Your task to perform on an android device: turn on improve location accuracy Image 0: 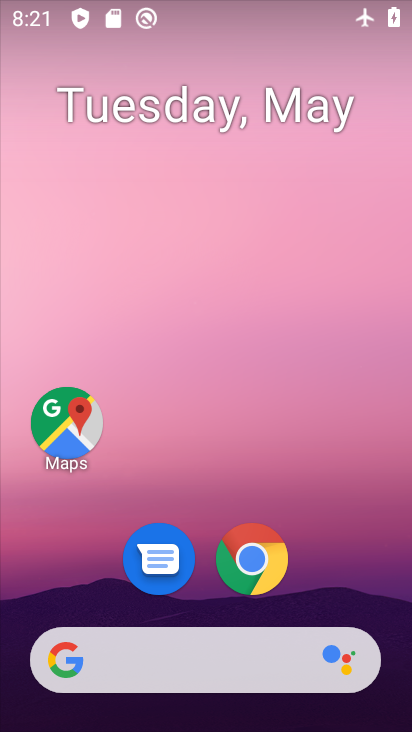
Step 0: drag from (220, 600) to (232, 199)
Your task to perform on an android device: turn on improve location accuracy Image 1: 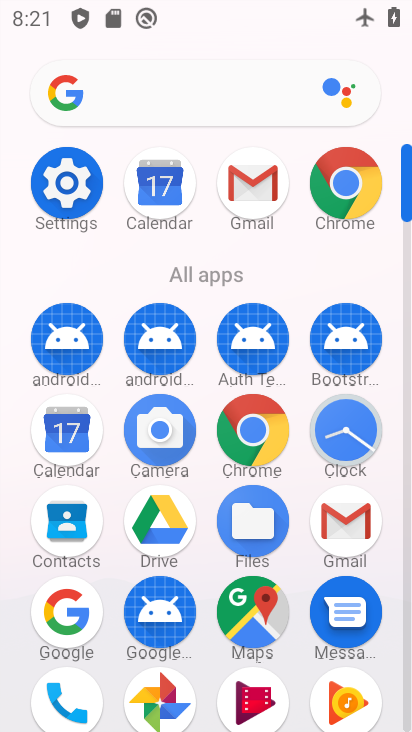
Step 1: click (59, 210)
Your task to perform on an android device: turn on improve location accuracy Image 2: 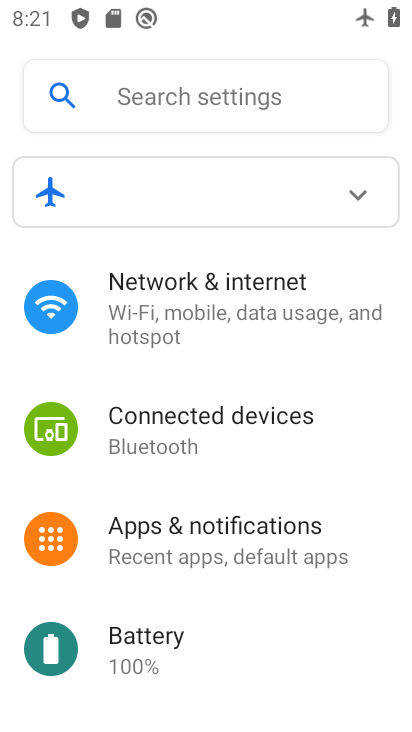
Step 2: drag from (223, 583) to (184, 352)
Your task to perform on an android device: turn on improve location accuracy Image 3: 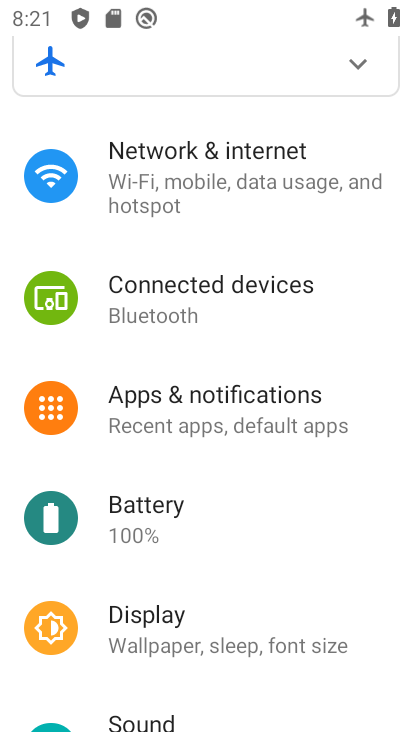
Step 3: drag from (205, 560) to (182, 331)
Your task to perform on an android device: turn on improve location accuracy Image 4: 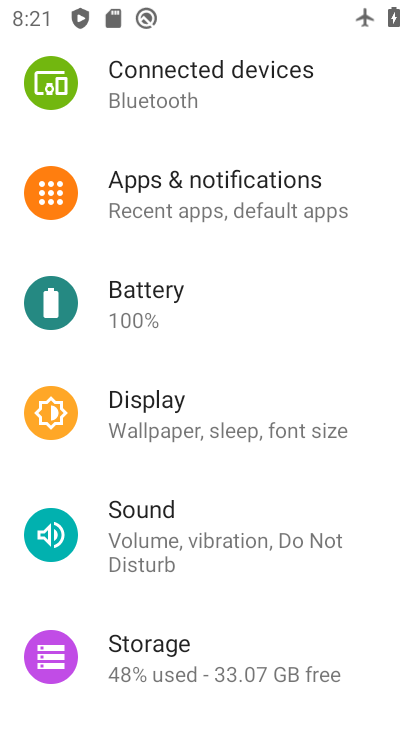
Step 4: drag from (203, 583) to (207, 388)
Your task to perform on an android device: turn on improve location accuracy Image 5: 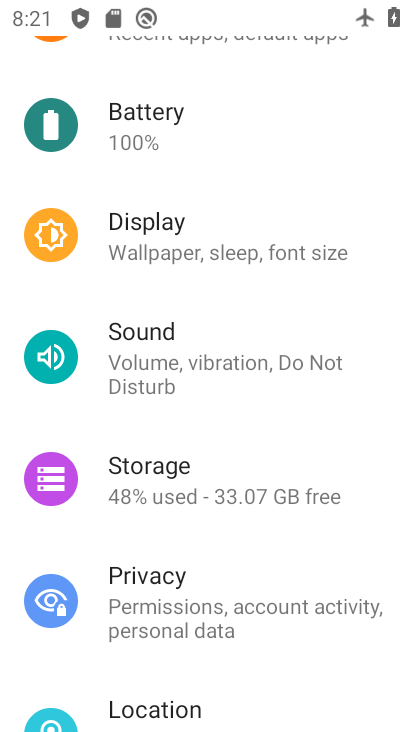
Step 5: click (202, 697)
Your task to perform on an android device: turn on improve location accuracy Image 6: 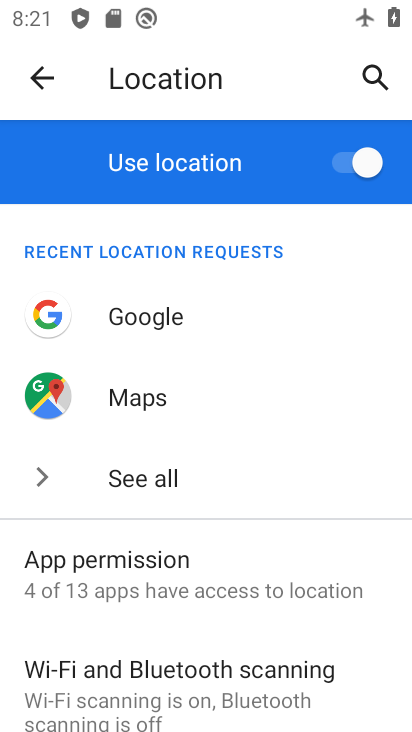
Step 6: drag from (285, 677) to (272, 417)
Your task to perform on an android device: turn on improve location accuracy Image 7: 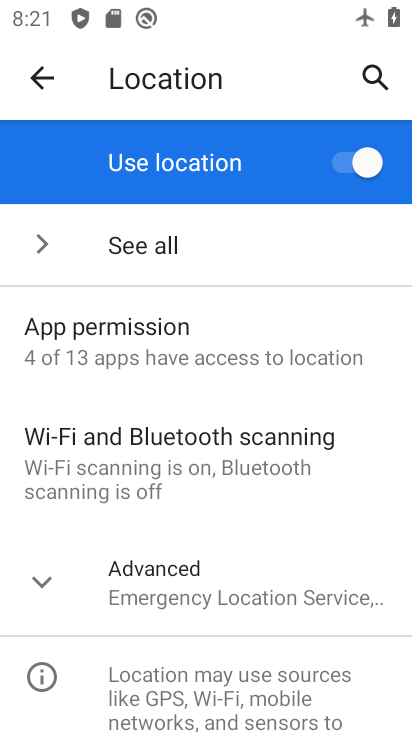
Step 7: click (260, 596)
Your task to perform on an android device: turn on improve location accuracy Image 8: 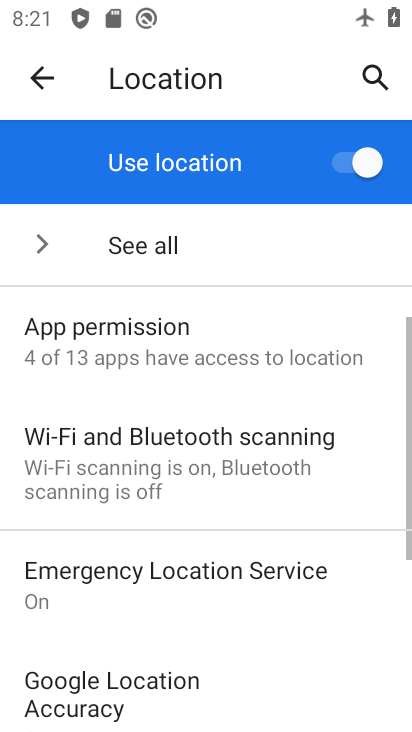
Step 8: drag from (260, 649) to (244, 485)
Your task to perform on an android device: turn on improve location accuracy Image 9: 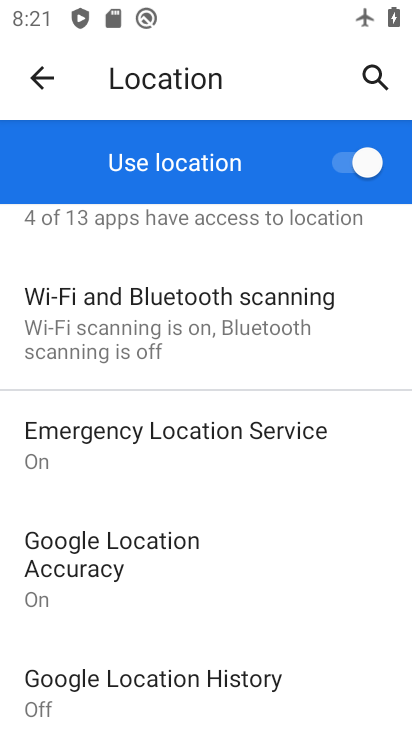
Step 9: click (203, 537)
Your task to perform on an android device: turn on improve location accuracy Image 10: 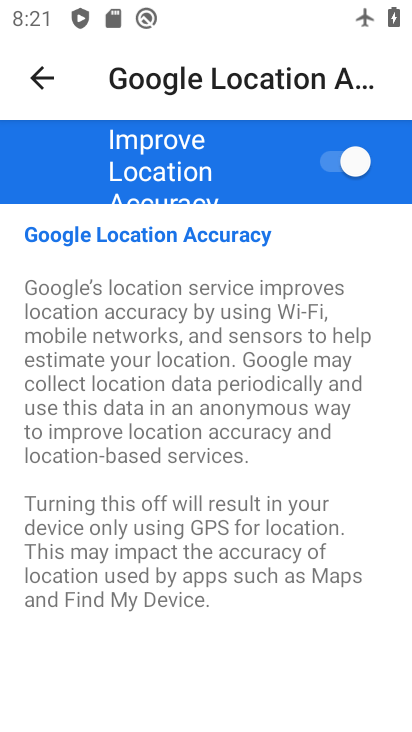
Step 10: task complete